Your task to perform on an android device: toggle priority inbox in the gmail app Image 0: 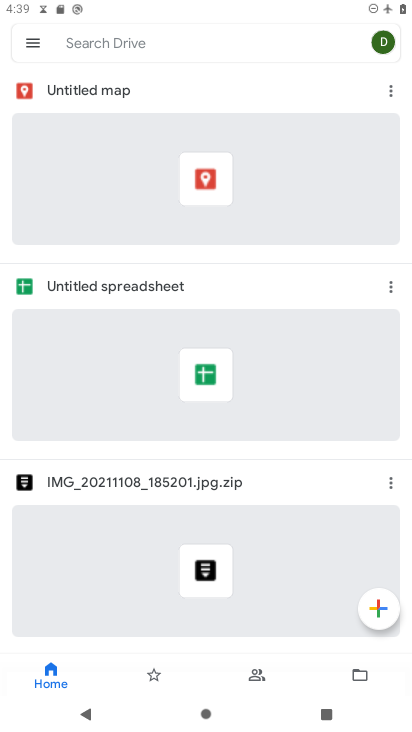
Step 0: press home button
Your task to perform on an android device: toggle priority inbox in the gmail app Image 1: 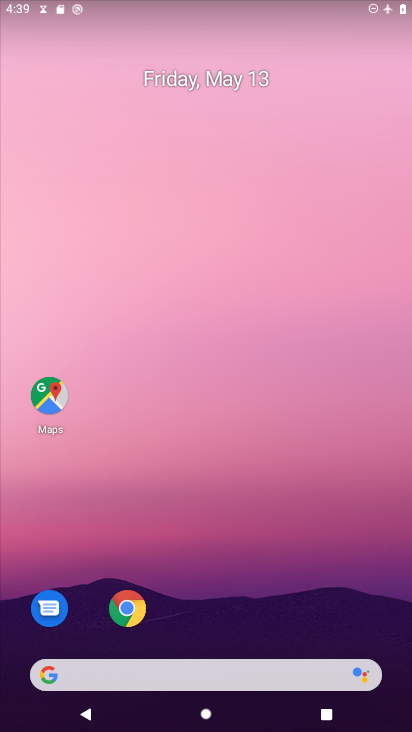
Step 1: drag from (298, 662) to (328, 22)
Your task to perform on an android device: toggle priority inbox in the gmail app Image 2: 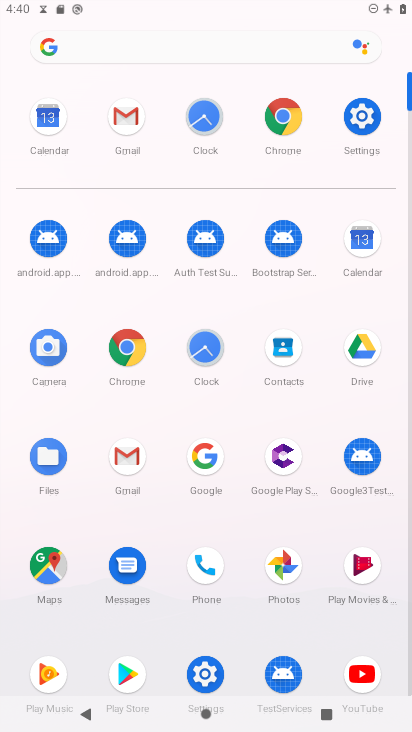
Step 2: click (120, 451)
Your task to perform on an android device: toggle priority inbox in the gmail app Image 3: 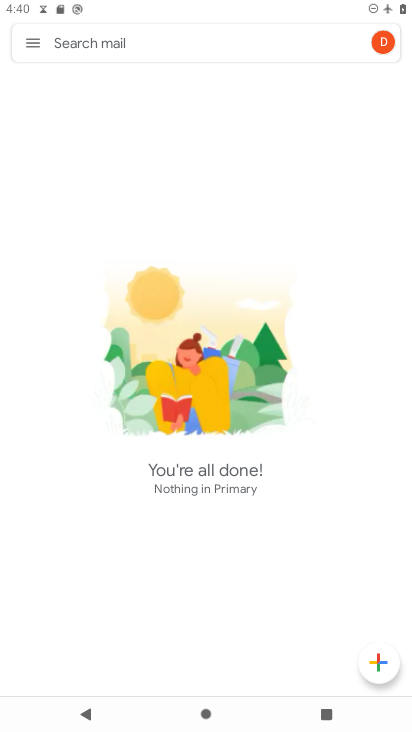
Step 3: click (32, 49)
Your task to perform on an android device: toggle priority inbox in the gmail app Image 4: 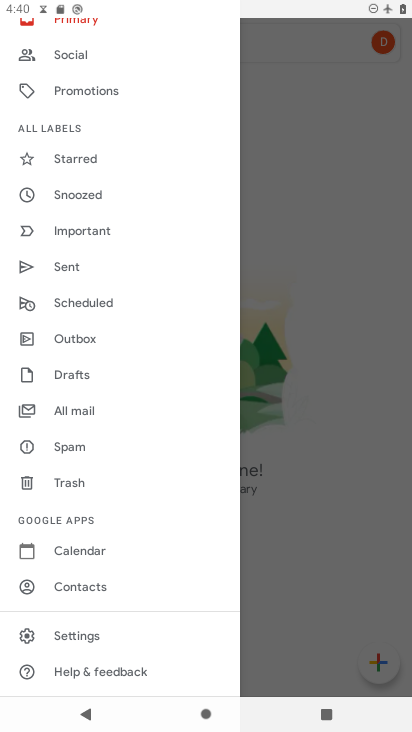
Step 4: click (90, 625)
Your task to perform on an android device: toggle priority inbox in the gmail app Image 5: 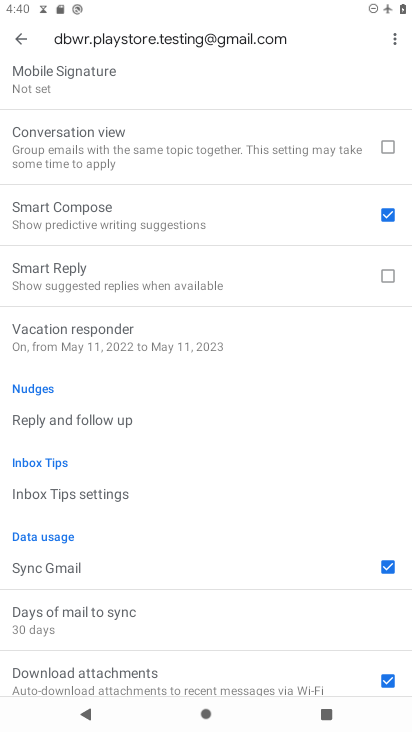
Step 5: drag from (200, 166) to (198, 716)
Your task to perform on an android device: toggle priority inbox in the gmail app Image 6: 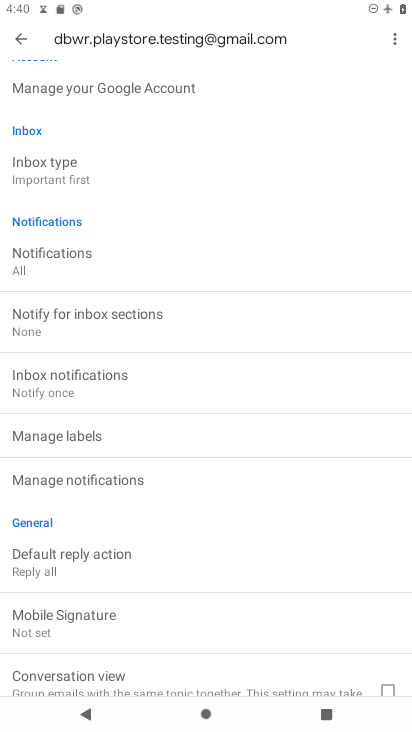
Step 6: drag from (185, 260) to (140, 583)
Your task to perform on an android device: toggle priority inbox in the gmail app Image 7: 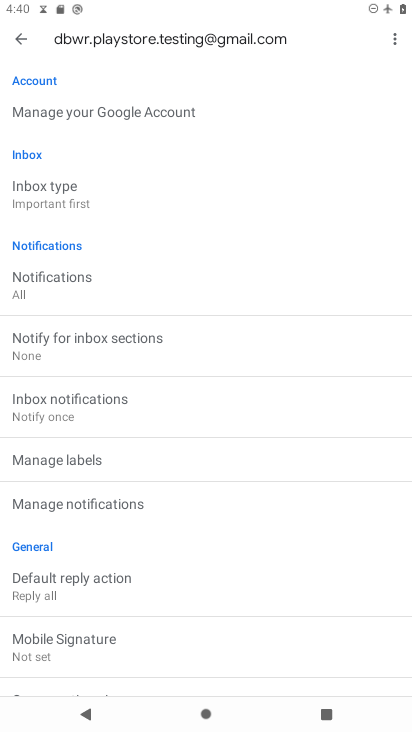
Step 7: click (55, 192)
Your task to perform on an android device: toggle priority inbox in the gmail app Image 8: 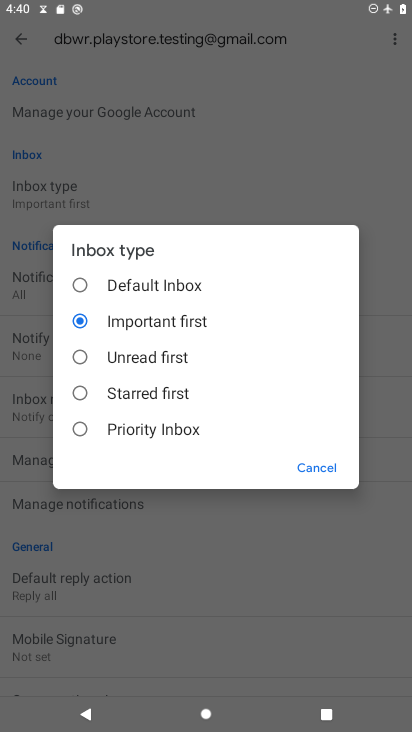
Step 8: click (105, 431)
Your task to perform on an android device: toggle priority inbox in the gmail app Image 9: 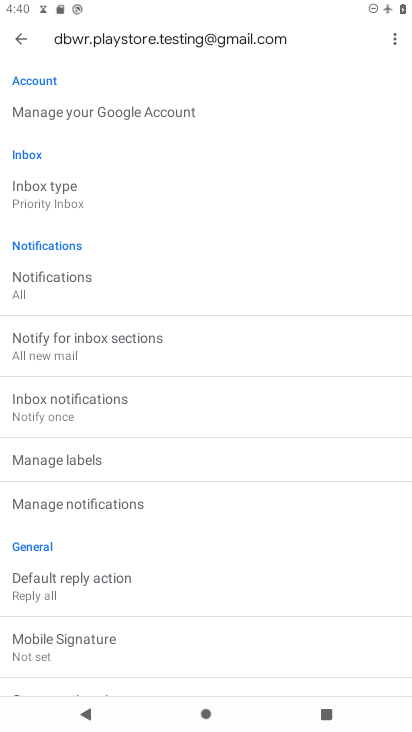
Step 9: task complete